Your task to perform on an android device: change your default location settings in chrome Image 0: 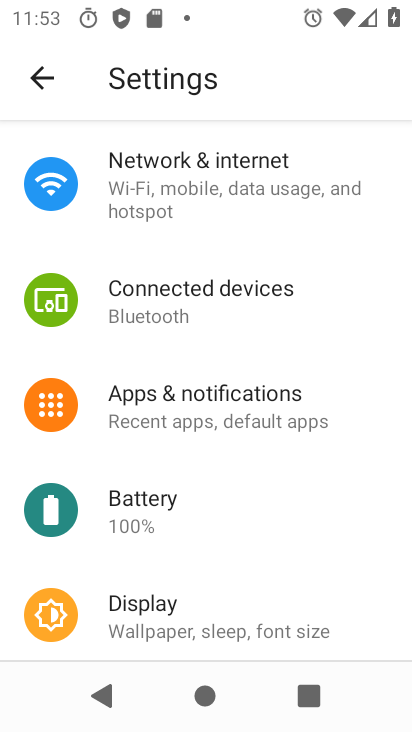
Step 0: press back button
Your task to perform on an android device: change your default location settings in chrome Image 1: 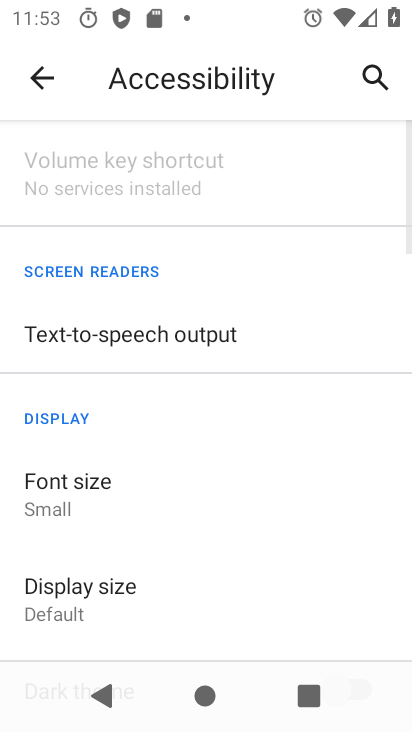
Step 1: press back button
Your task to perform on an android device: change your default location settings in chrome Image 2: 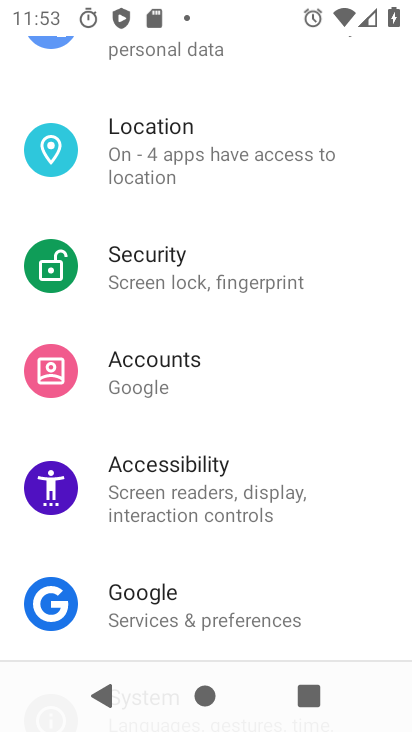
Step 2: press back button
Your task to perform on an android device: change your default location settings in chrome Image 3: 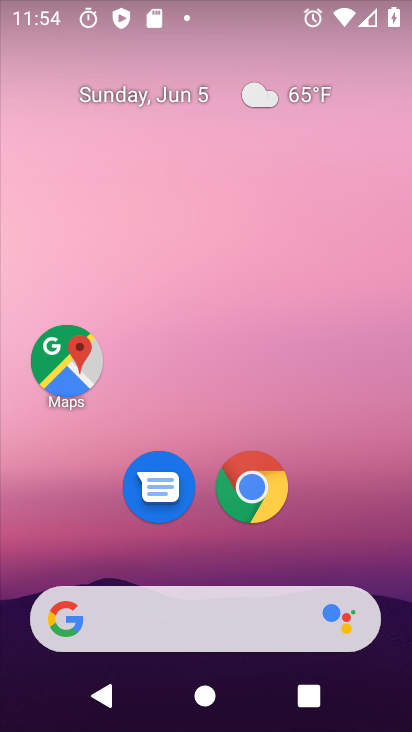
Step 3: click (254, 489)
Your task to perform on an android device: change your default location settings in chrome Image 4: 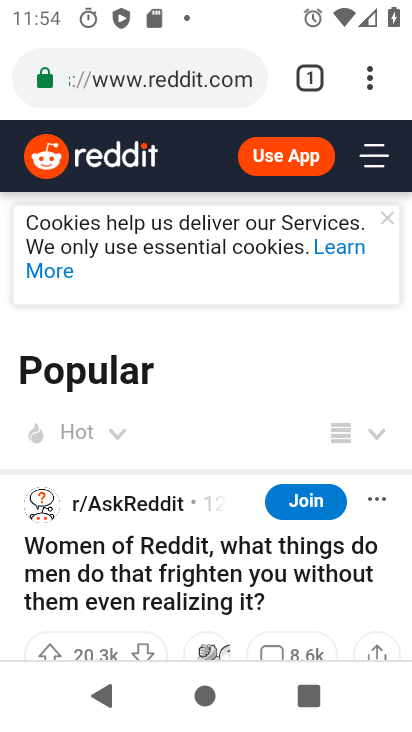
Step 4: click (369, 74)
Your task to perform on an android device: change your default location settings in chrome Image 5: 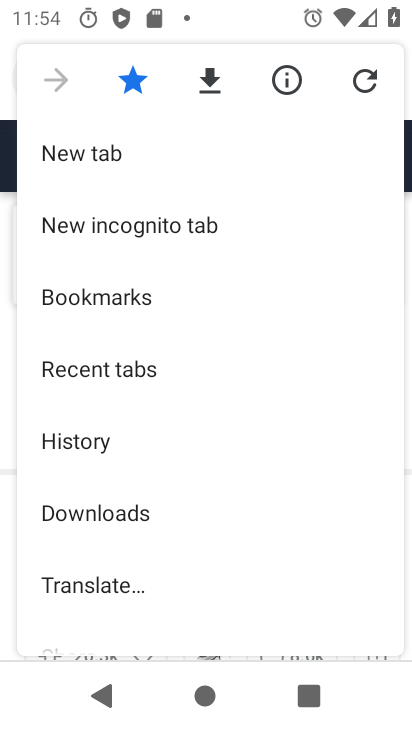
Step 5: drag from (88, 396) to (118, 271)
Your task to perform on an android device: change your default location settings in chrome Image 6: 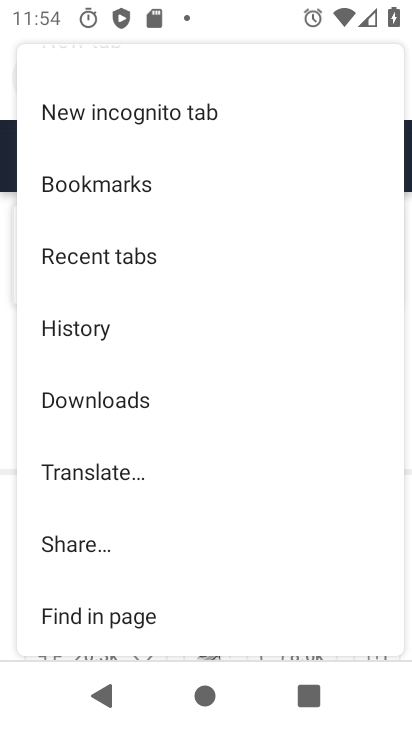
Step 6: drag from (113, 367) to (146, 273)
Your task to perform on an android device: change your default location settings in chrome Image 7: 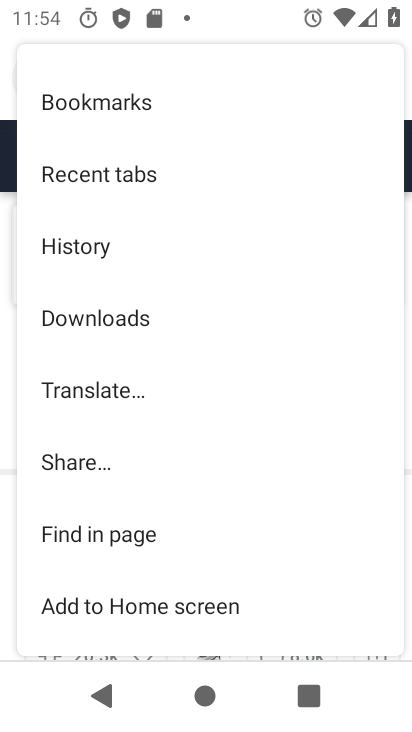
Step 7: drag from (91, 435) to (155, 353)
Your task to perform on an android device: change your default location settings in chrome Image 8: 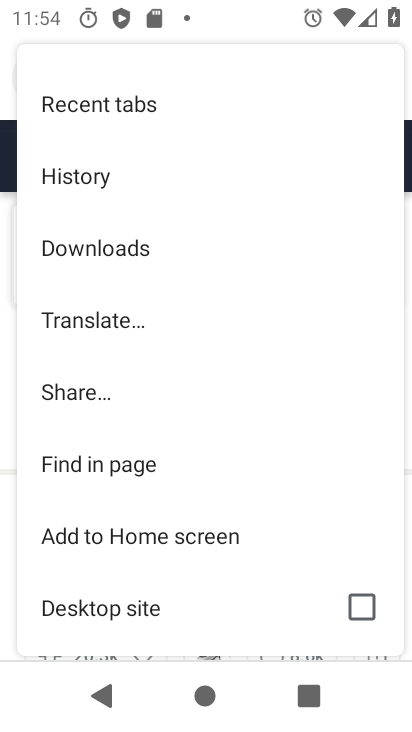
Step 8: drag from (95, 511) to (190, 403)
Your task to perform on an android device: change your default location settings in chrome Image 9: 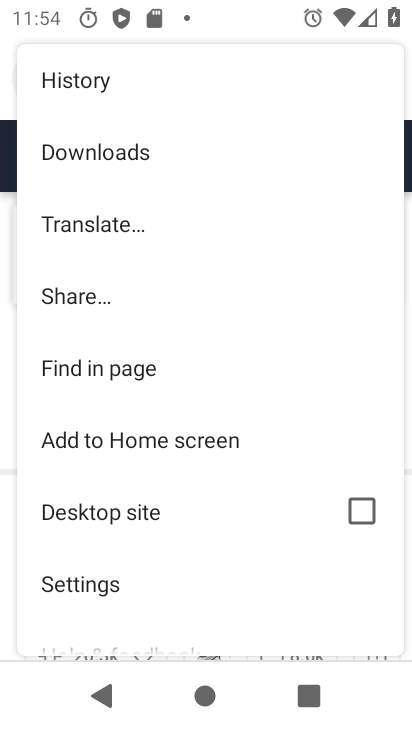
Step 9: drag from (122, 540) to (213, 439)
Your task to perform on an android device: change your default location settings in chrome Image 10: 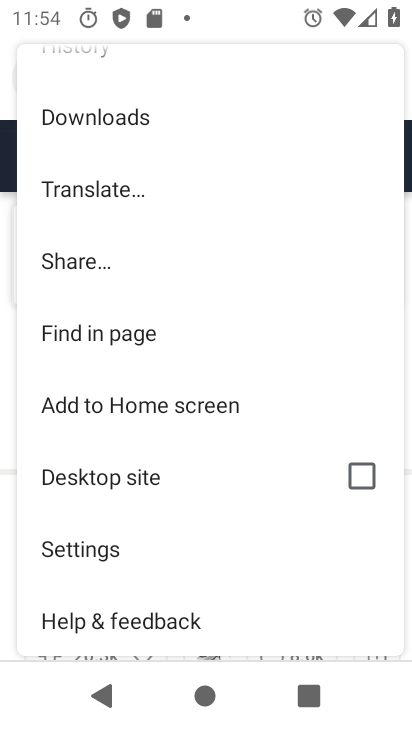
Step 10: click (98, 545)
Your task to perform on an android device: change your default location settings in chrome Image 11: 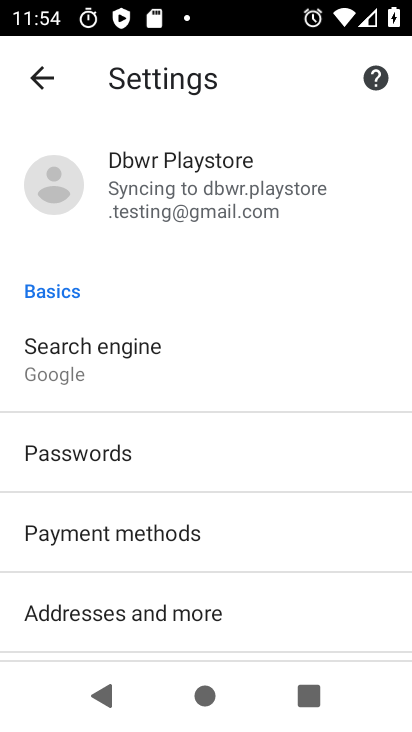
Step 11: drag from (144, 552) to (227, 436)
Your task to perform on an android device: change your default location settings in chrome Image 12: 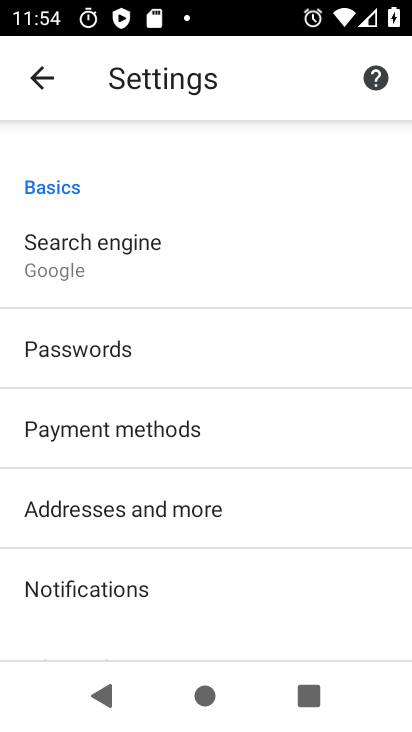
Step 12: drag from (152, 607) to (257, 445)
Your task to perform on an android device: change your default location settings in chrome Image 13: 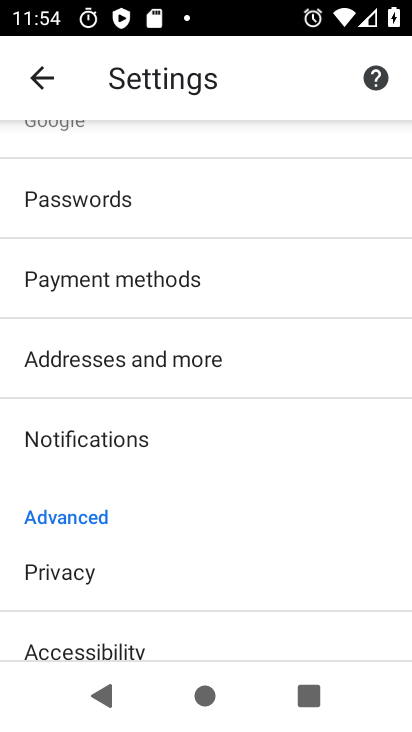
Step 13: drag from (165, 590) to (279, 455)
Your task to perform on an android device: change your default location settings in chrome Image 14: 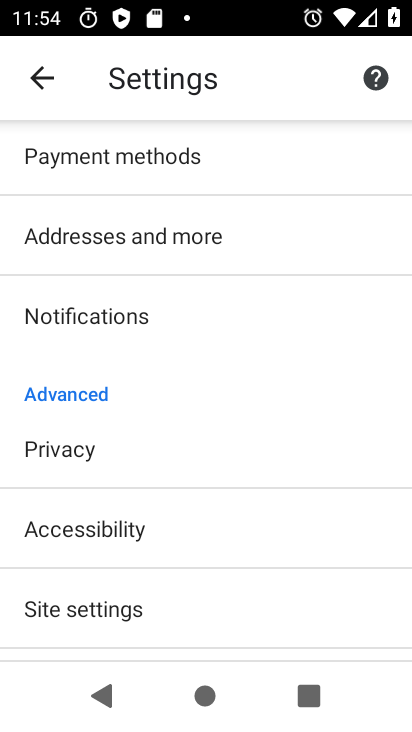
Step 14: click (112, 603)
Your task to perform on an android device: change your default location settings in chrome Image 15: 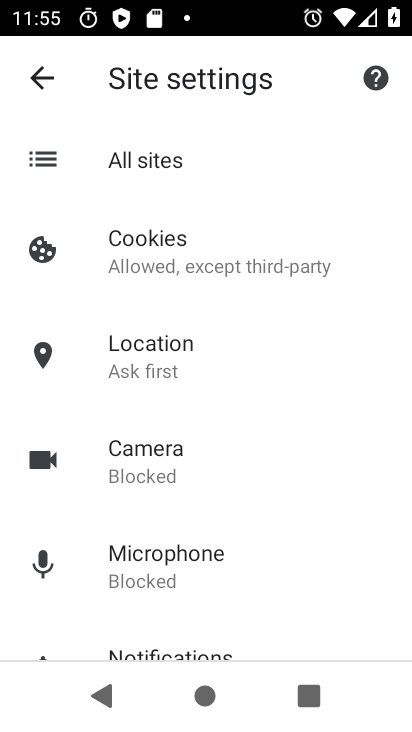
Step 15: click (192, 345)
Your task to perform on an android device: change your default location settings in chrome Image 16: 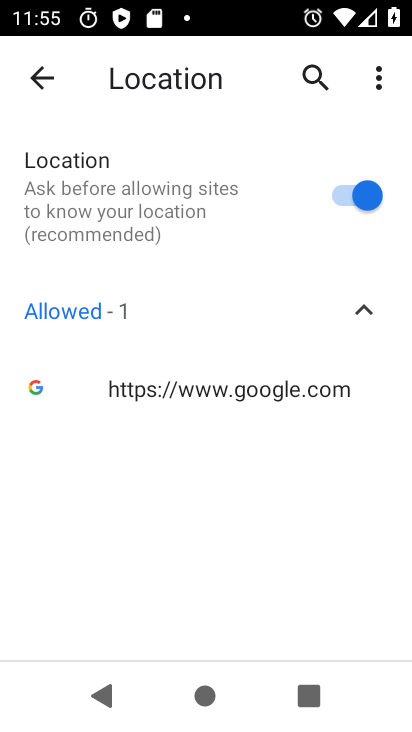
Step 16: click (360, 201)
Your task to perform on an android device: change your default location settings in chrome Image 17: 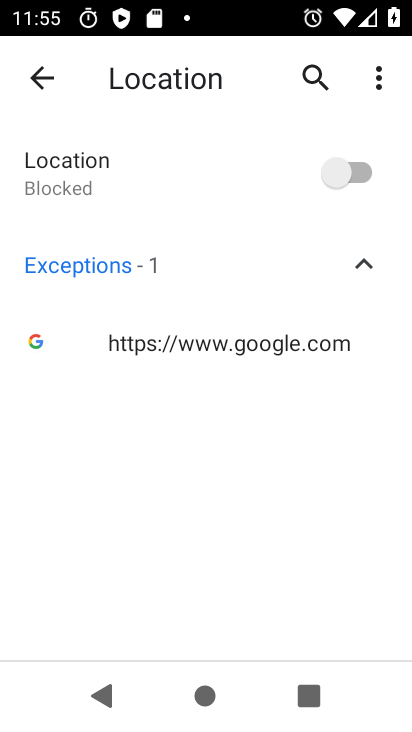
Step 17: task complete